Your task to perform on an android device: Add "logitech g502" to the cart on amazon.com Image 0: 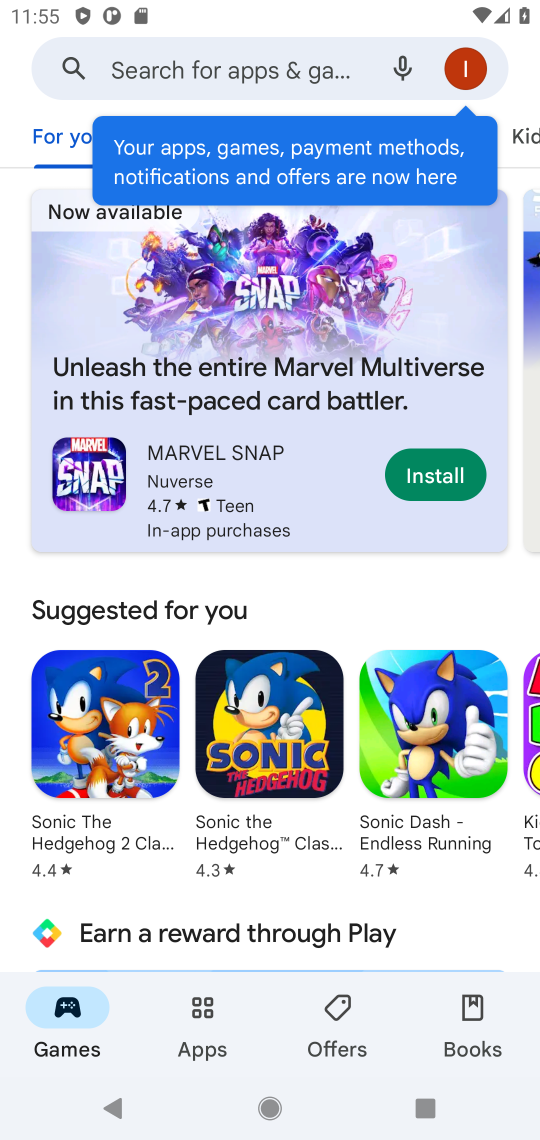
Step 0: press home button
Your task to perform on an android device: Add "logitech g502" to the cart on amazon.com Image 1: 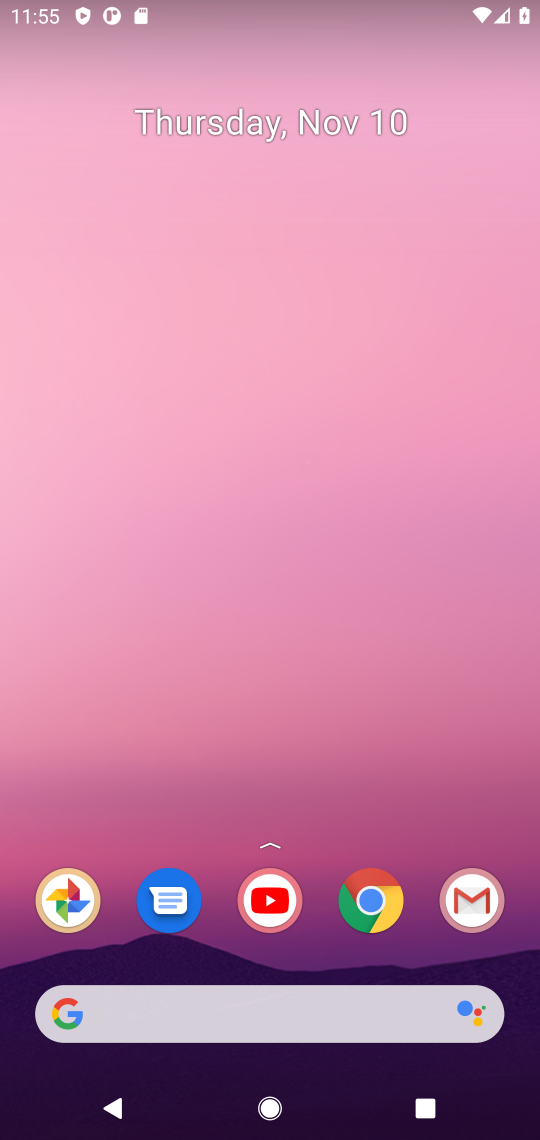
Step 1: click (377, 902)
Your task to perform on an android device: Add "logitech g502" to the cart on amazon.com Image 2: 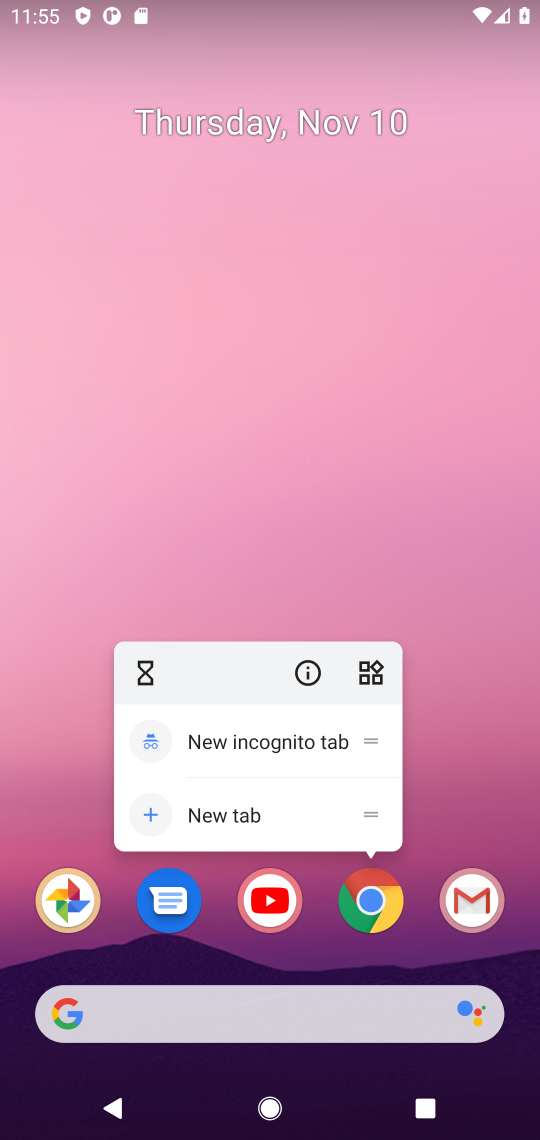
Step 2: click (370, 904)
Your task to perform on an android device: Add "logitech g502" to the cart on amazon.com Image 3: 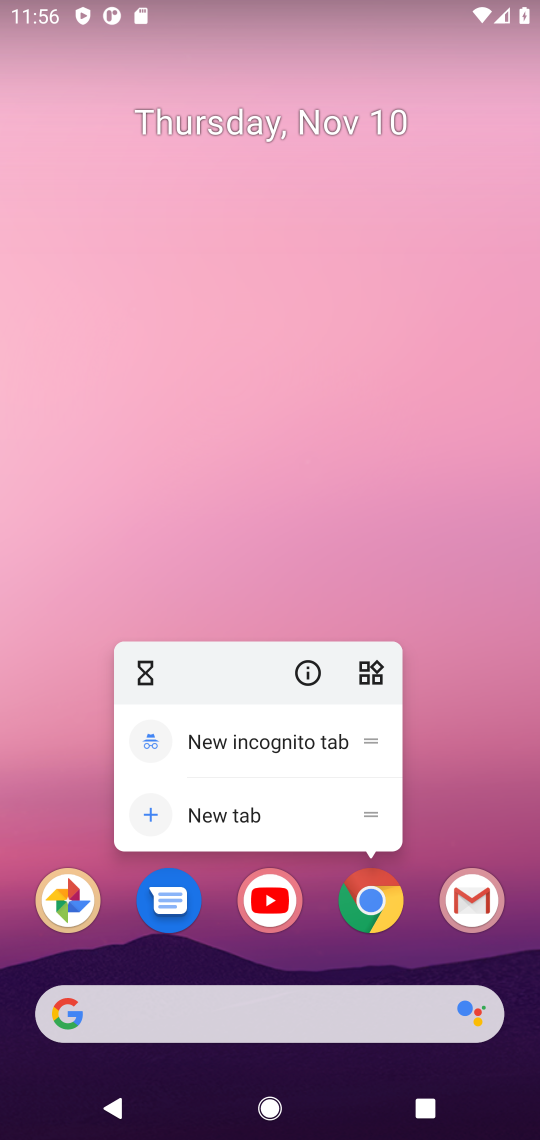
Step 3: click (370, 906)
Your task to perform on an android device: Add "logitech g502" to the cart on amazon.com Image 4: 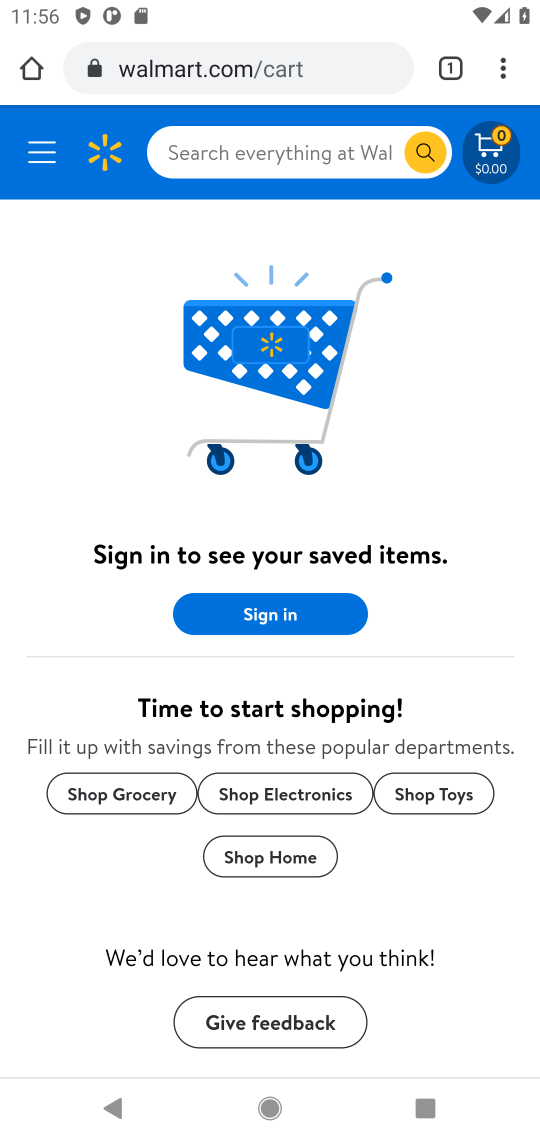
Step 4: click (288, 68)
Your task to perform on an android device: Add "logitech g502" to the cart on amazon.com Image 5: 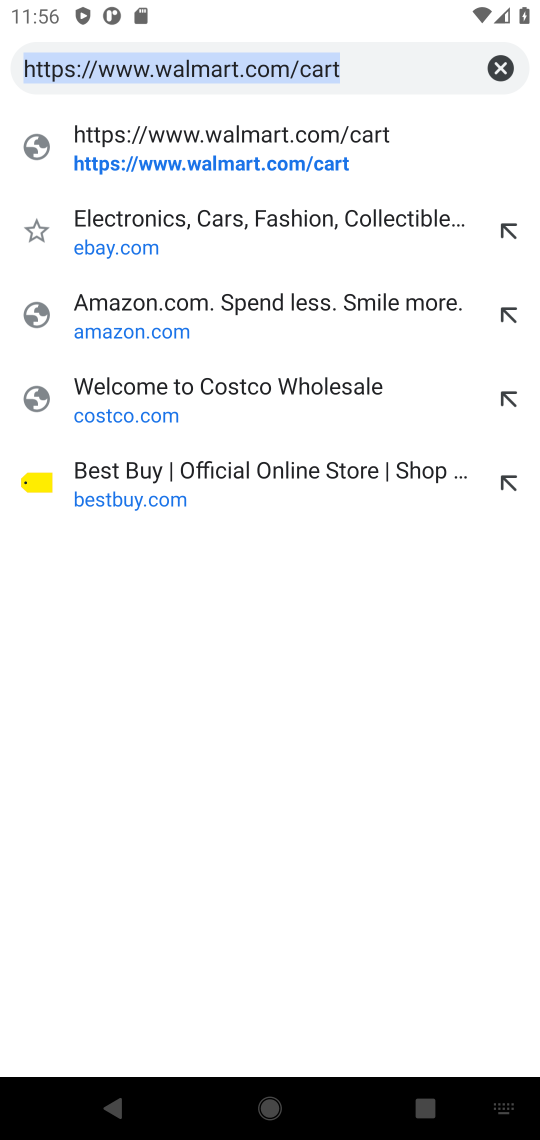
Step 5: click (502, 62)
Your task to perform on an android device: Add "logitech g502" to the cart on amazon.com Image 6: 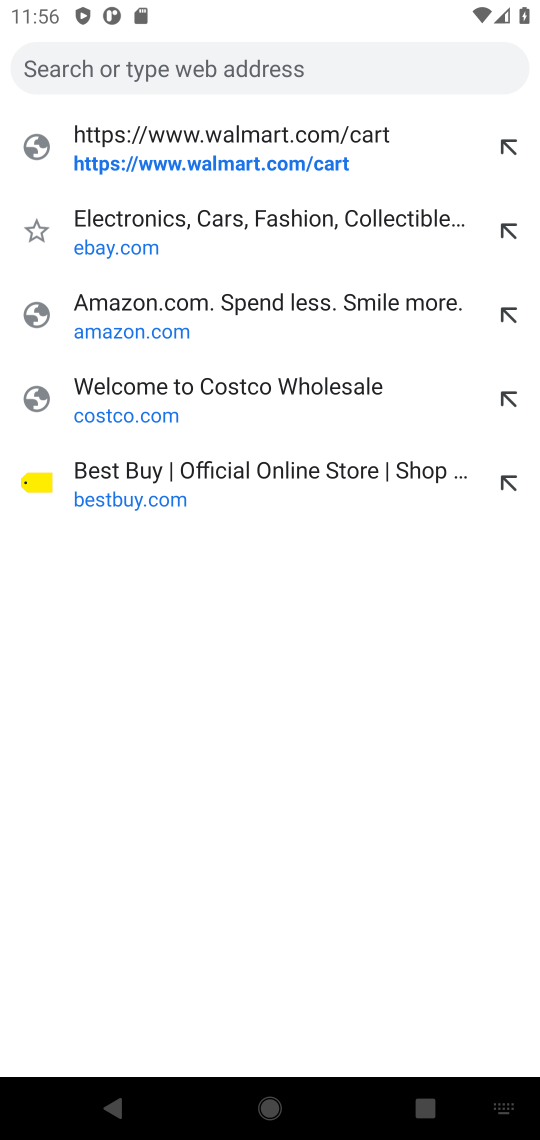
Step 6: click (140, 324)
Your task to perform on an android device: Add "logitech g502" to the cart on amazon.com Image 7: 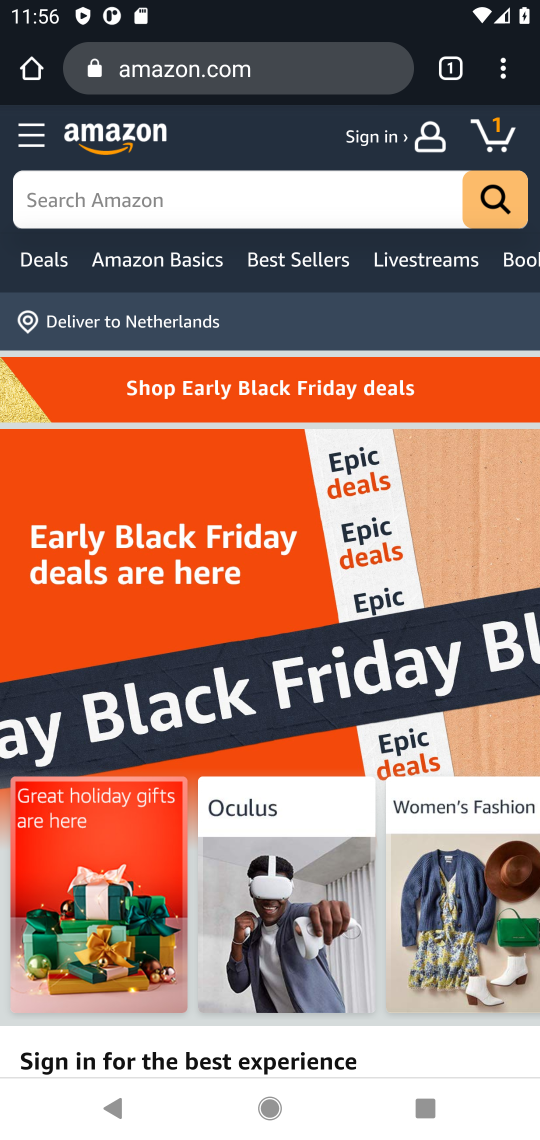
Step 7: click (79, 193)
Your task to perform on an android device: Add "logitech g502" to the cart on amazon.com Image 8: 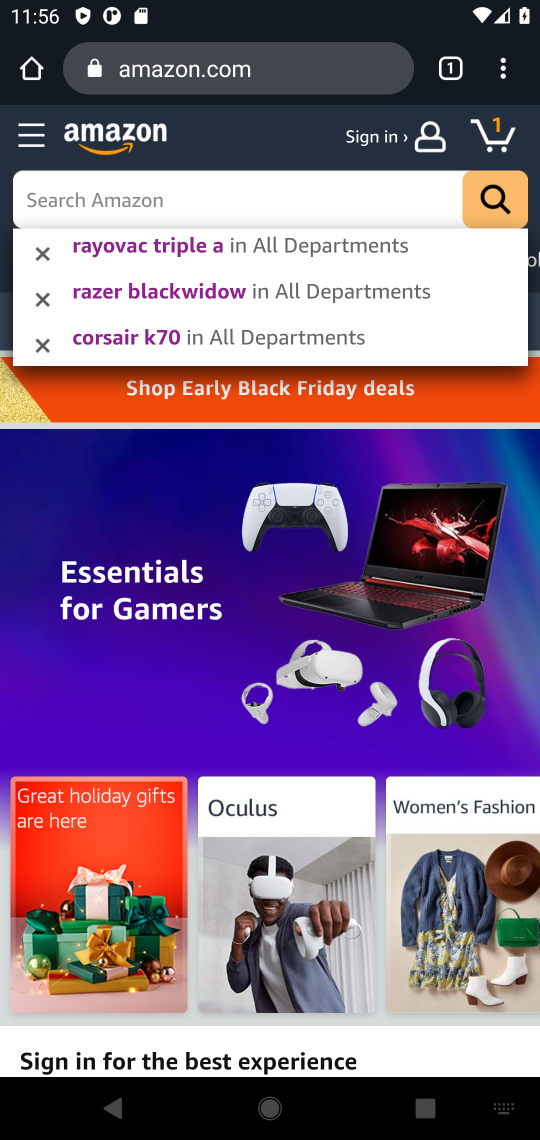
Step 8: press enter
Your task to perform on an android device: Add "logitech g502" to the cart on amazon.com Image 9: 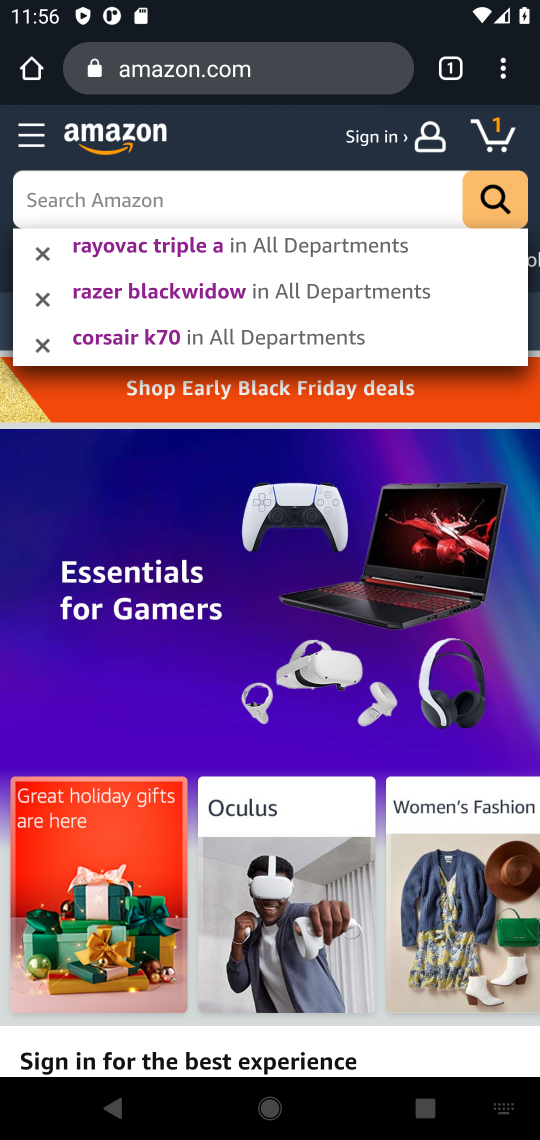
Step 9: type "logitech g502"
Your task to perform on an android device: Add "logitech g502" to the cart on amazon.com Image 10: 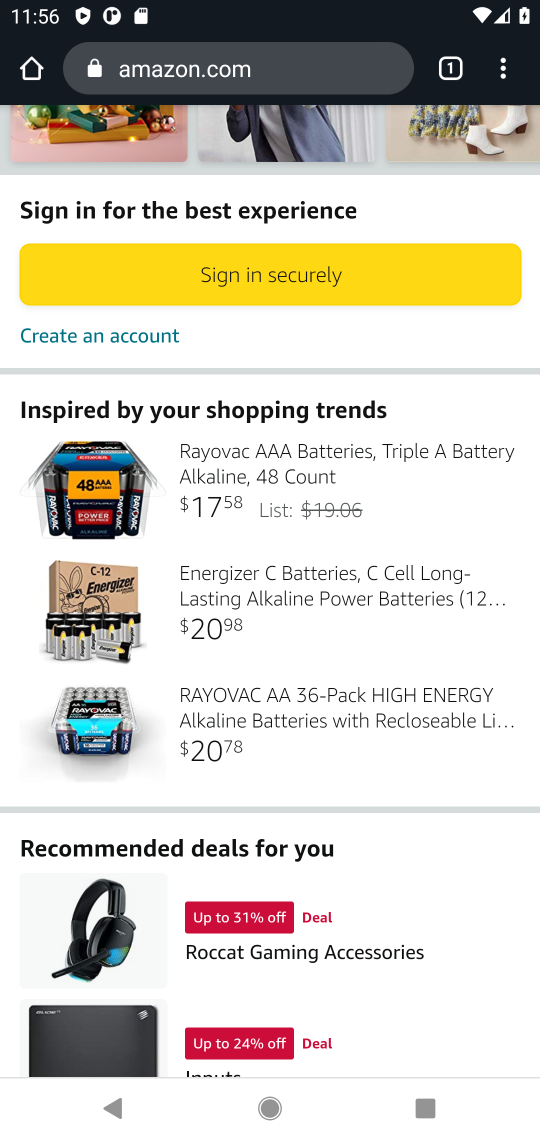
Step 10: drag from (381, 168) to (207, 950)
Your task to perform on an android device: Add "logitech g502" to the cart on amazon.com Image 11: 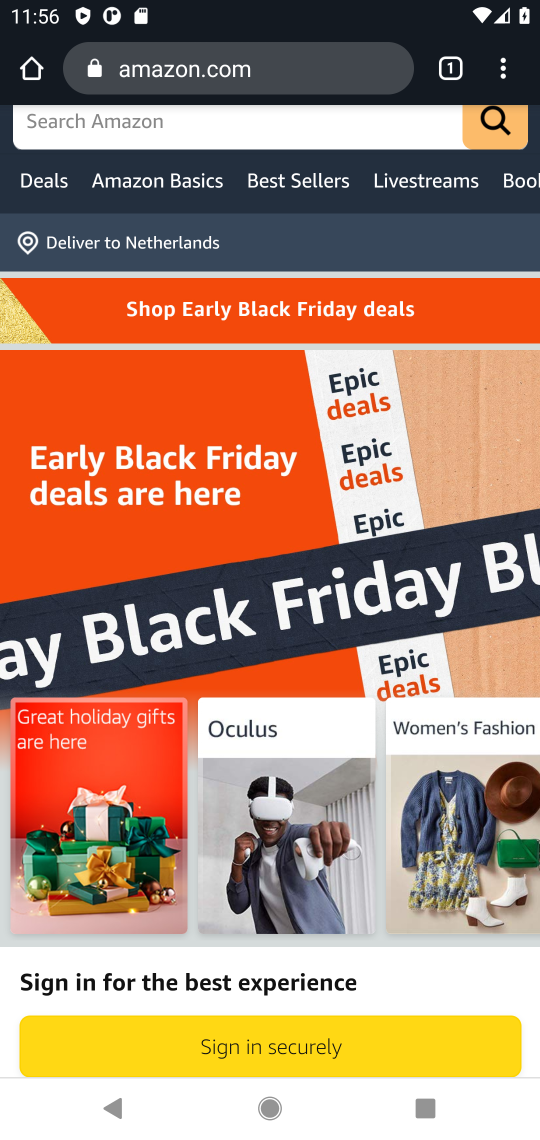
Step 11: drag from (277, 392) to (179, 901)
Your task to perform on an android device: Add "logitech g502" to the cart on amazon.com Image 12: 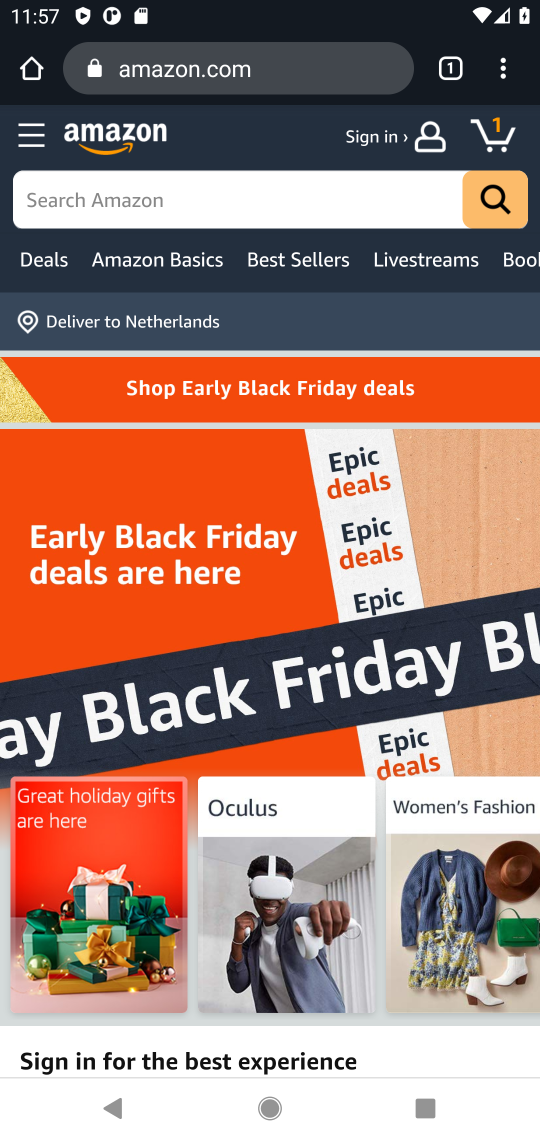
Step 12: click (165, 197)
Your task to perform on an android device: Add "logitech g502" to the cart on amazon.com Image 13: 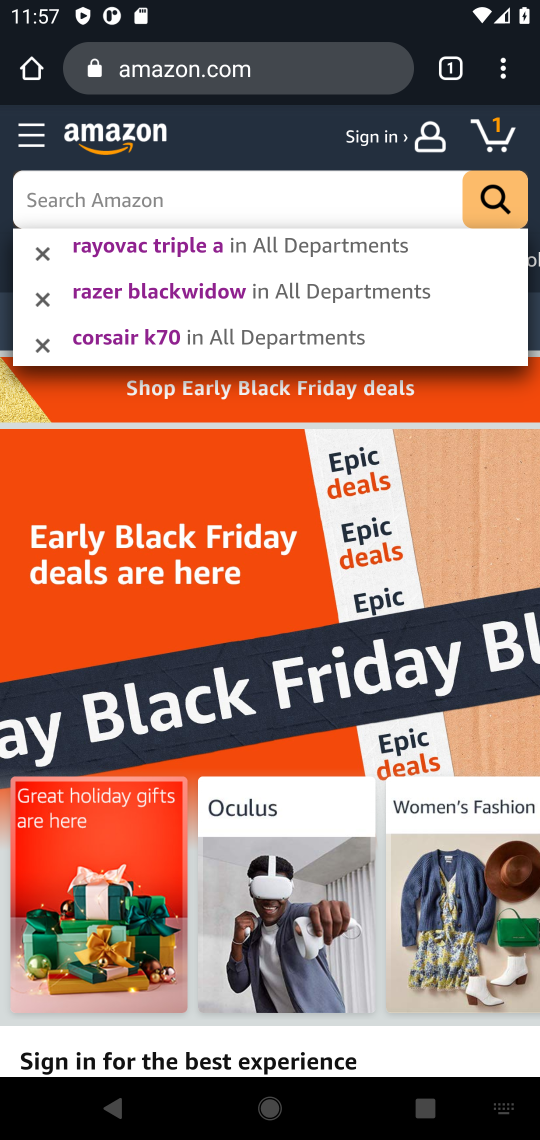
Step 13: press enter
Your task to perform on an android device: Add "logitech g502" to the cart on amazon.com Image 14: 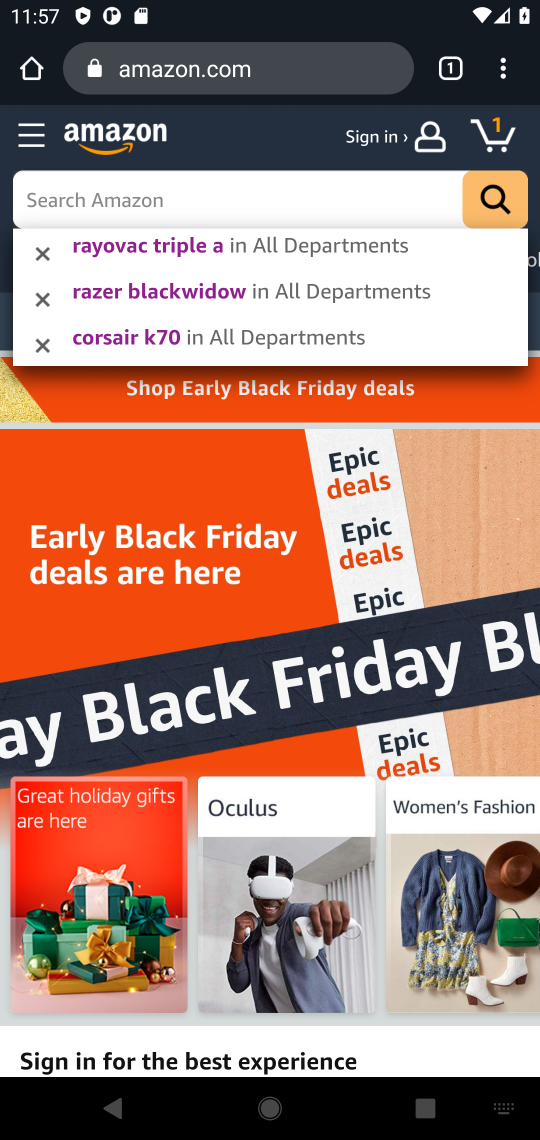
Step 14: type "logitech g502"
Your task to perform on an android device: Add "logitech g502" to the cart on amazon.com Image 15: 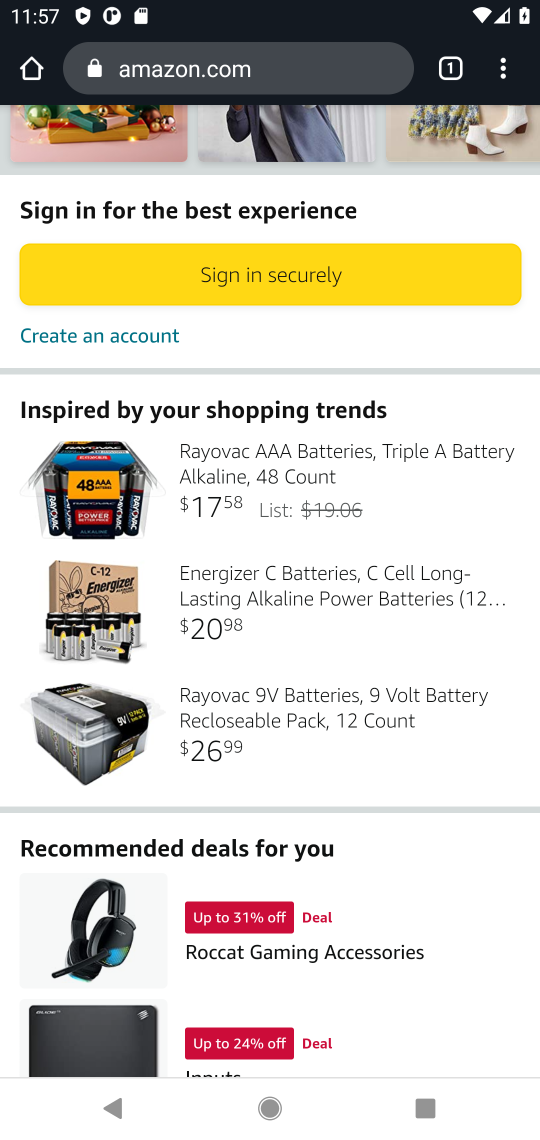
Step 15: drag from (194, 154) to (172, 830)
Your task to perform on an android device: Add "logitech g502" to the cart on amazon.com Image 16: 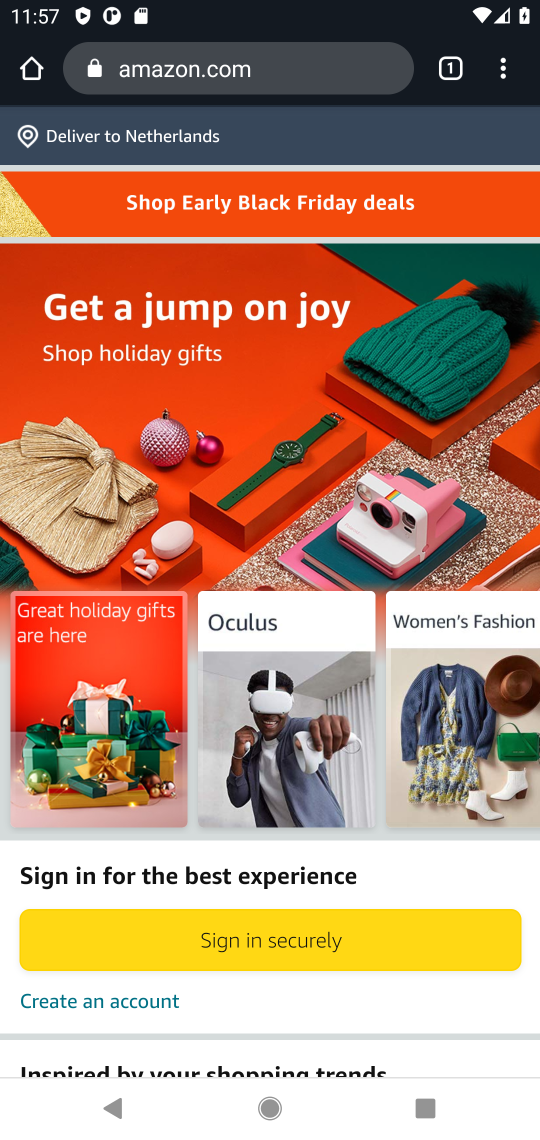
Step 16: drag from (202, 321) to (217, 870)
Your task to perform on an android device: Add "logitech g502" to the cart on amazon.com Image 17: 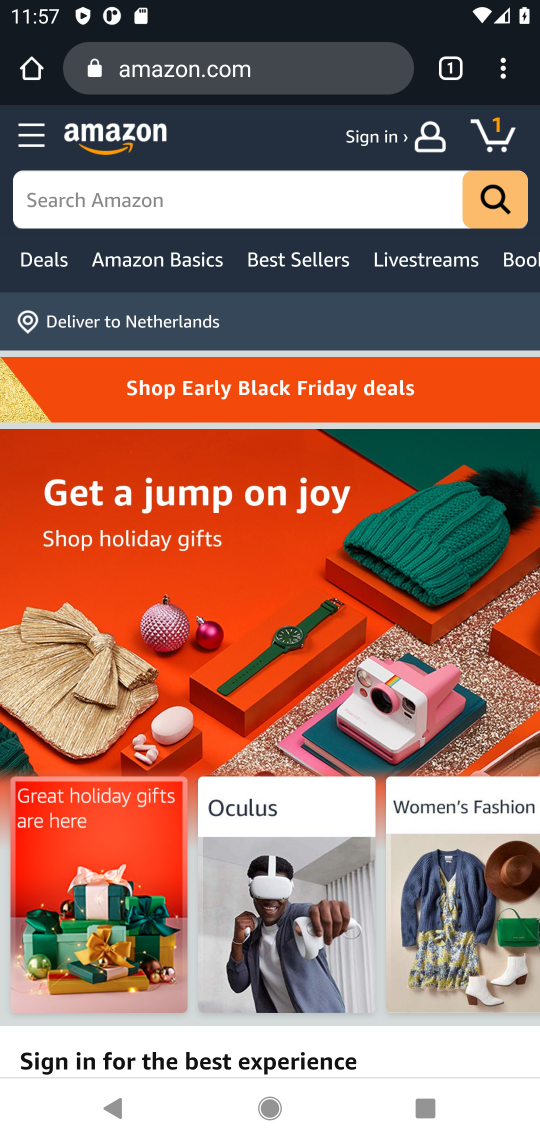
Step 17: click (123, 197)
Your task to perform on an android device: Add "logitech g502" to the cart on amazon.com Image 18: 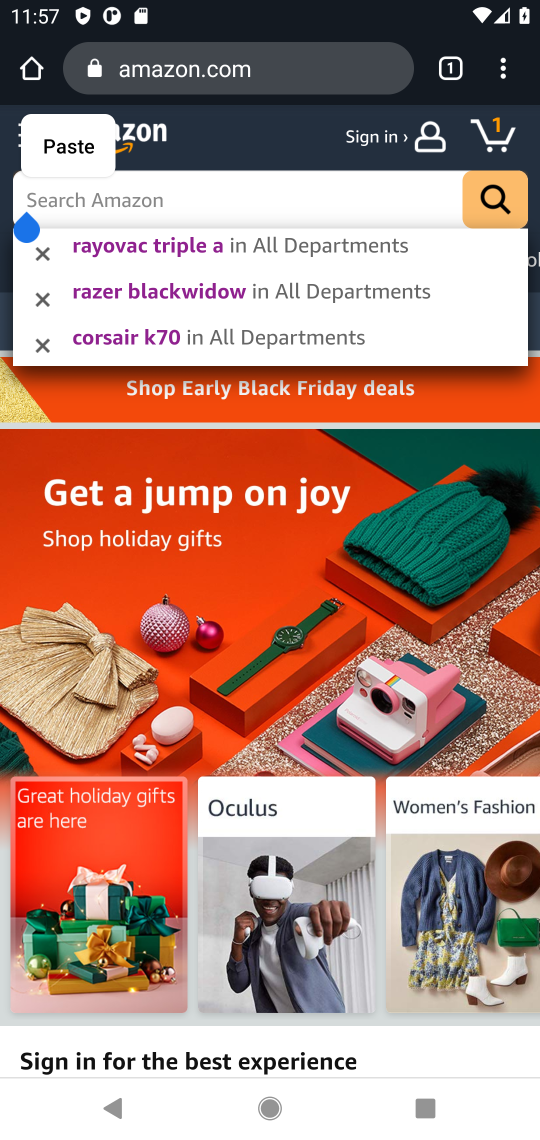
Step 18: type "logitech g502"
Your task to perform on an android device: Add "logitech g502" to the cart on amazon.com Image 19: 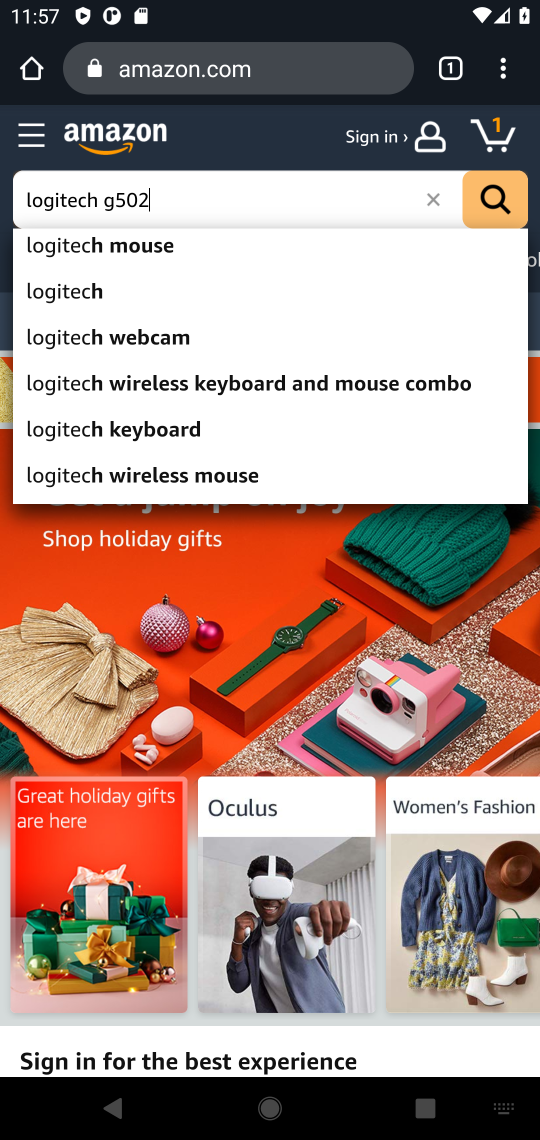
Step 19: press enter
Your task to perform on an android device: Add "logitech g502" to the cart on amazon.com Image 20: 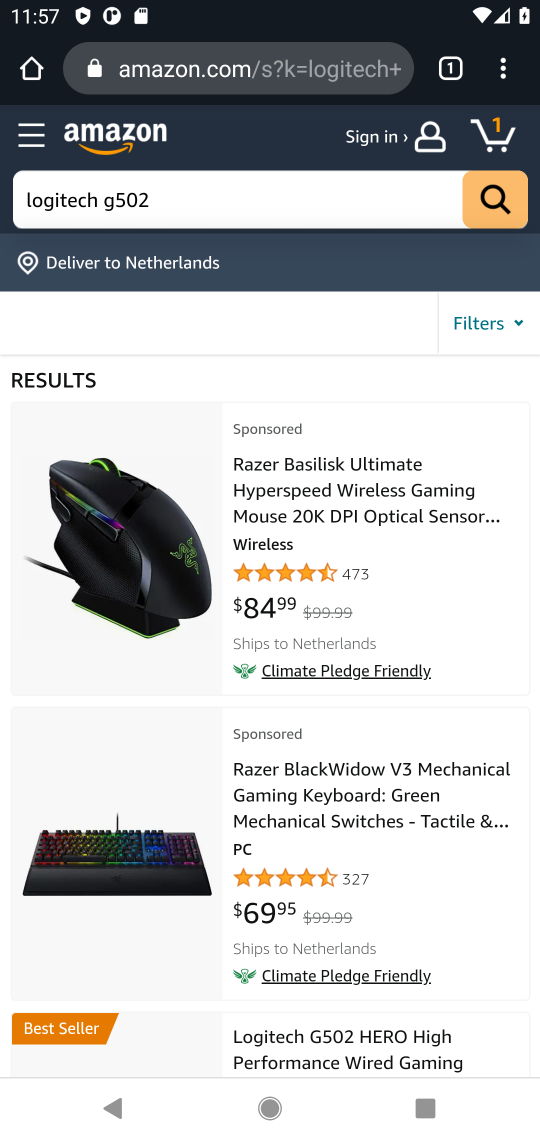
Step 20: drag from (269, 937) to (407, 516)
Your task to perform on an android device: Add "logitech g502" to the cart on amazon.com Image 21: 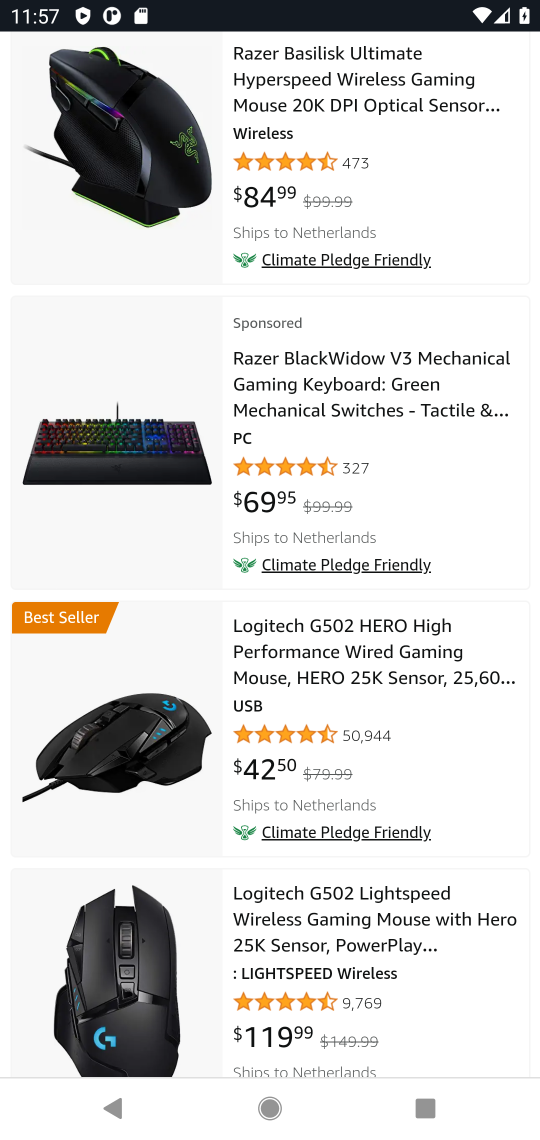
Step 21: click (331, 634)
Your task to perform on an android device: Add "logitech g502" to the cart on amazon.com Image 22: 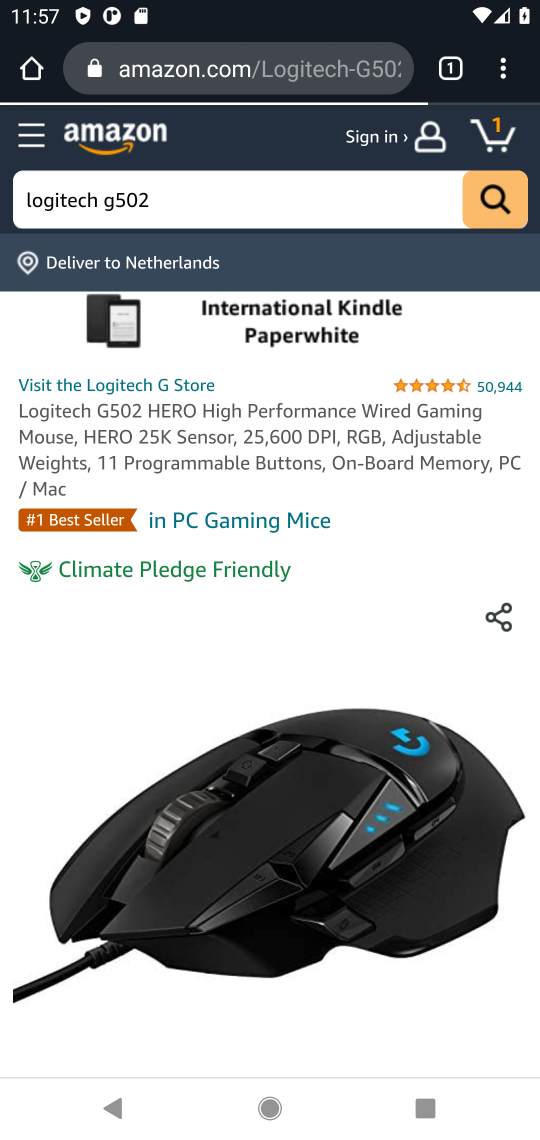
Step 22: drag from (79, 758) to (416, 214)
Your task to perform on an android device: Add "logitech g502" to the cart on amazon.com Image 23: 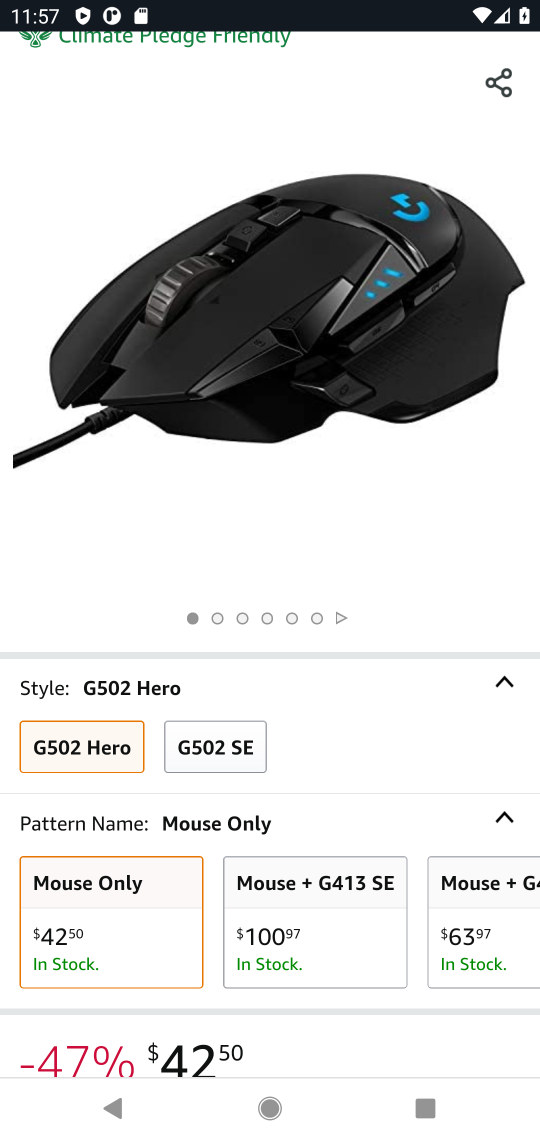
Step 23: drag from (325, 998) to (440, 393)
Your task to perform on an android device: Add "logitech g502" to the cart on amazon.com Image 24: 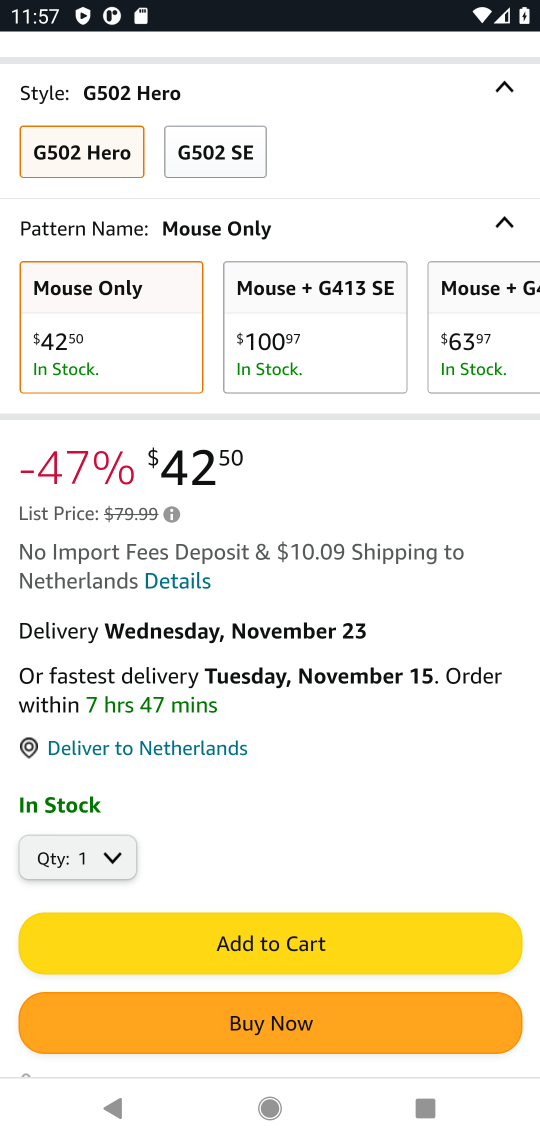
Step 24: click (291, 946)
Your task to perform on an android device: Add "logitech g502" to the cart on amazon.com Image 25: 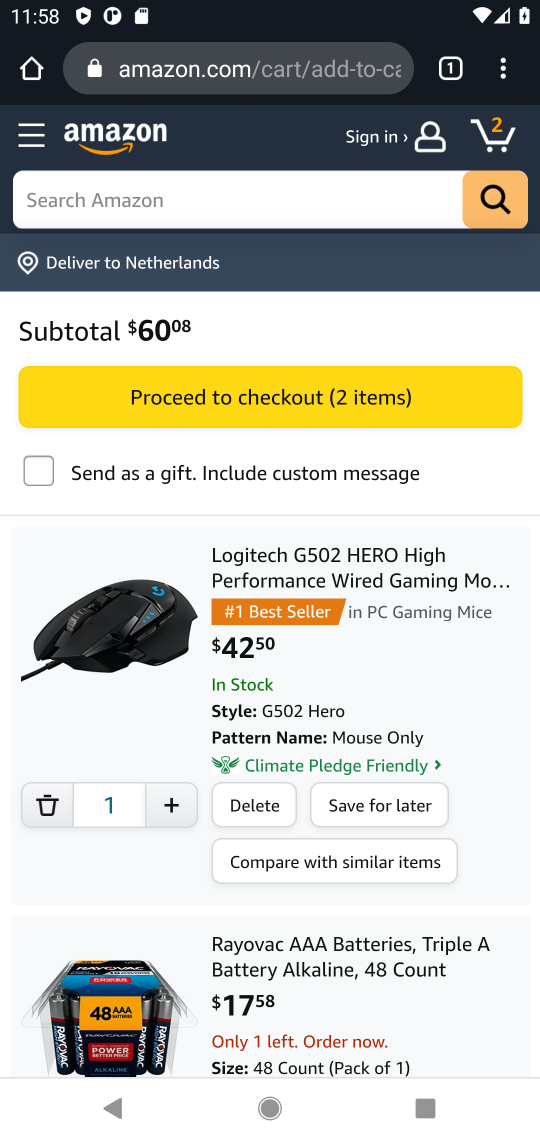
Step 25: task complete